Your task to perform on an android device: open sync settings in chrome Image 0: 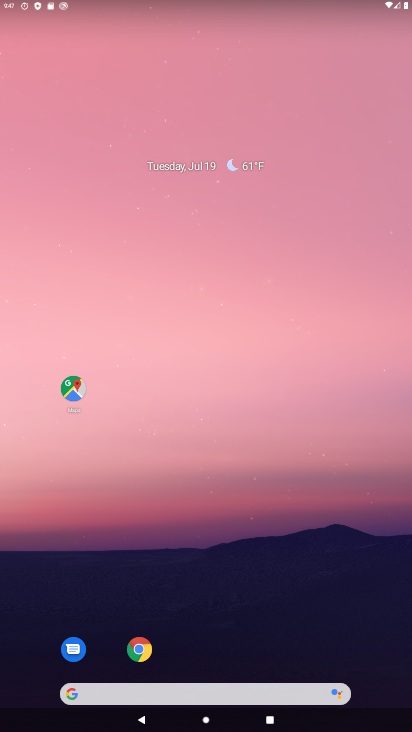
Step 0: click (133, 658)
Your task to perform on an android device: open sync settings in chrome Image 1: 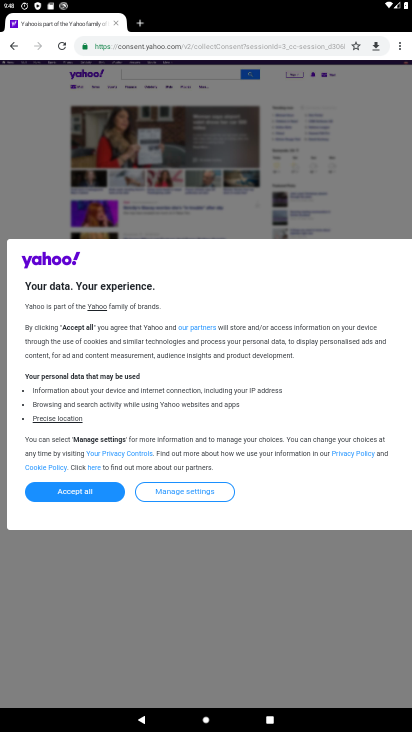
Step 1: click (401, 47)
Your task to perform on an android device: open sync settings in chrome Image 2: 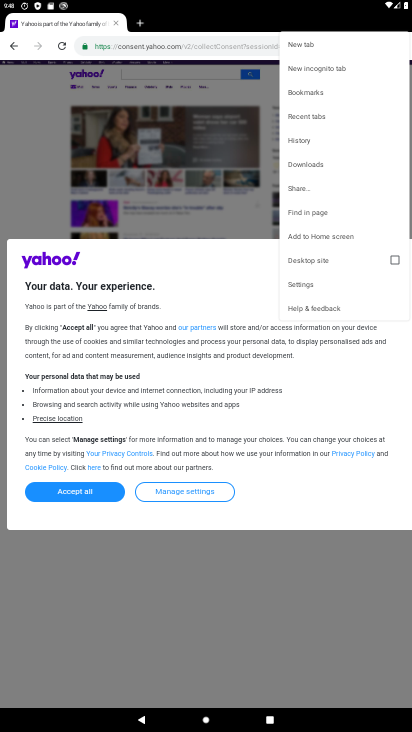
Step 2: click (321, 284)
Your task to perform on an android device: open sync settings in chrome Image 3: 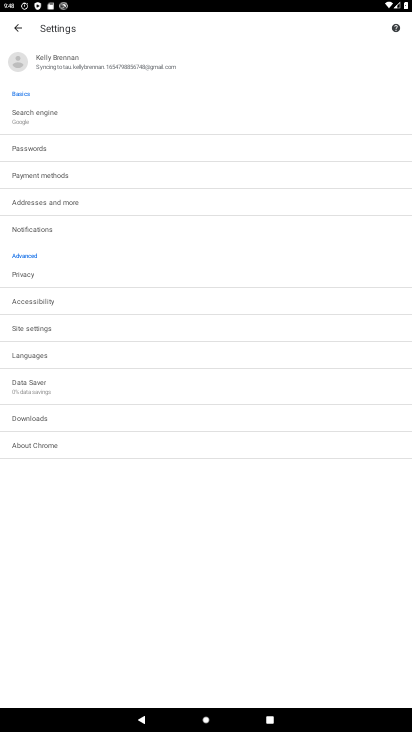
Step 3: click (81, 54)
Your task to perform on an android device: open sync settings in chrome Image 4: 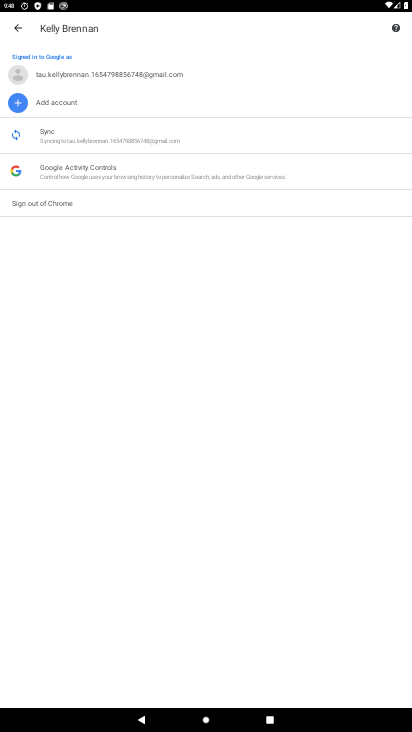
Step 4: click (87, 129)
Your task to perform on an android device: open sync settings in chrome Image 5: 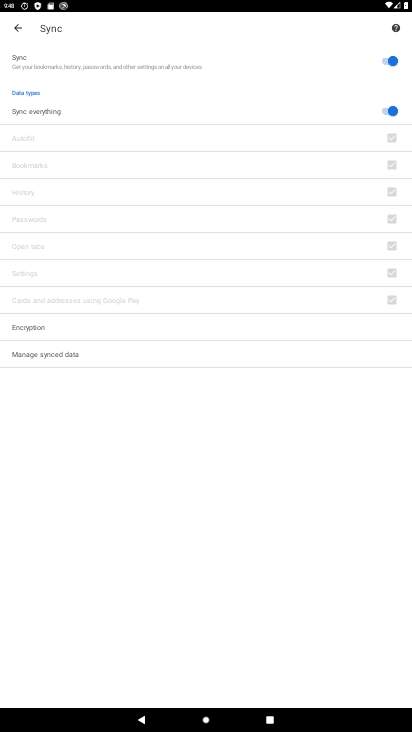
Step 5: task complete